Your task to perform on an android device: Go to eBay Image 0: 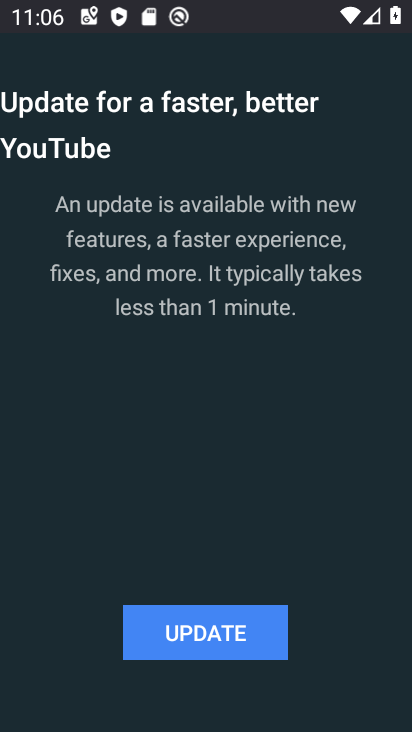
Step 0: press back button
Your task to perform on an android device: Go to eBay Image 1: 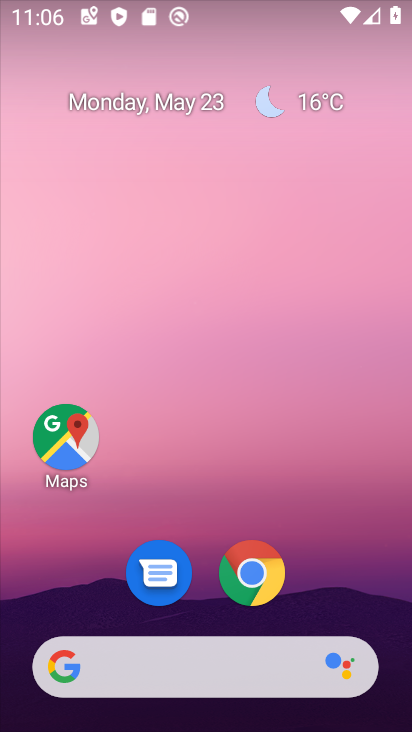
Step 1: drag from (321, 555) to (230, 25)
Your task to perform on an android device: Go to eBay Image 2: 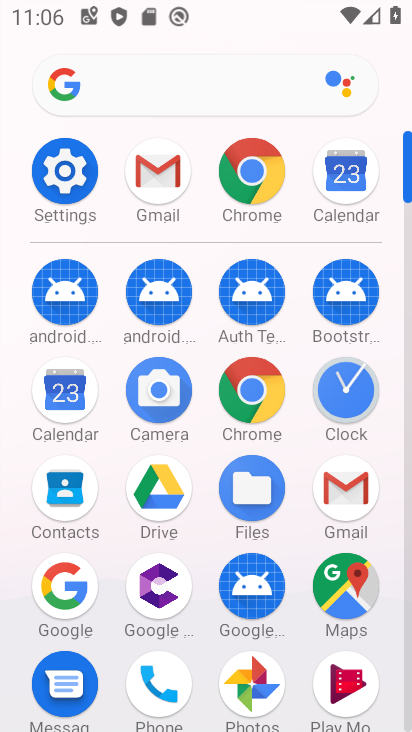
Step 2: drag from (31, 496) to (14, 148)
Your task to perform on an android device: Go to eBay Image 3: 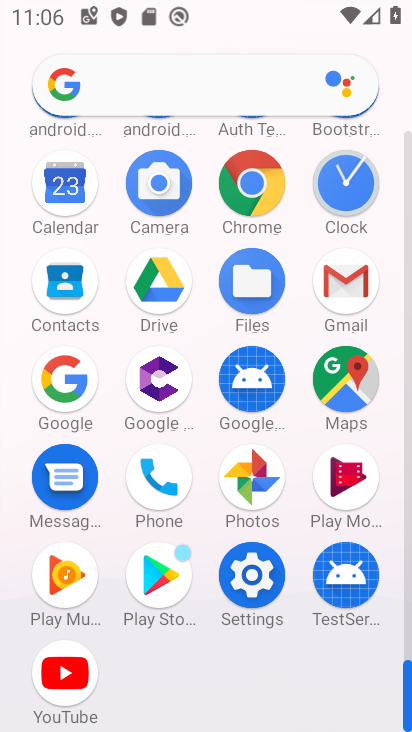
Step 3: click (252, 184)
Your task to perform on an android device: Go to eBay Image 4: 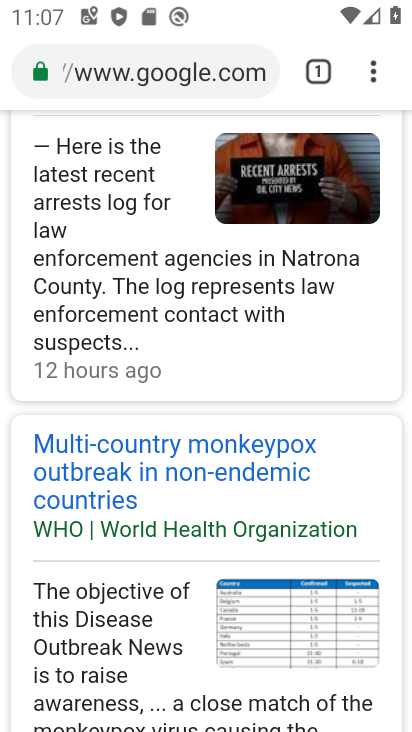
Step 4: drag from (155, 162) to (114, 463)
Your task to perform on an android device: Go to eBay Image 5: 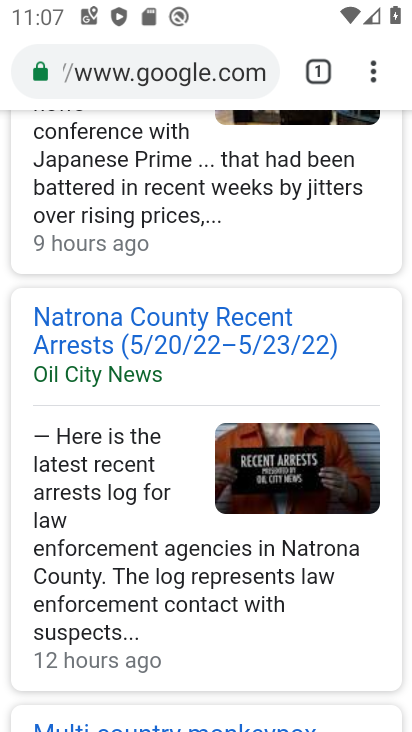
Step 5: click (125, 60)
Your task to perform on an android device: Go to eBay Image 6: 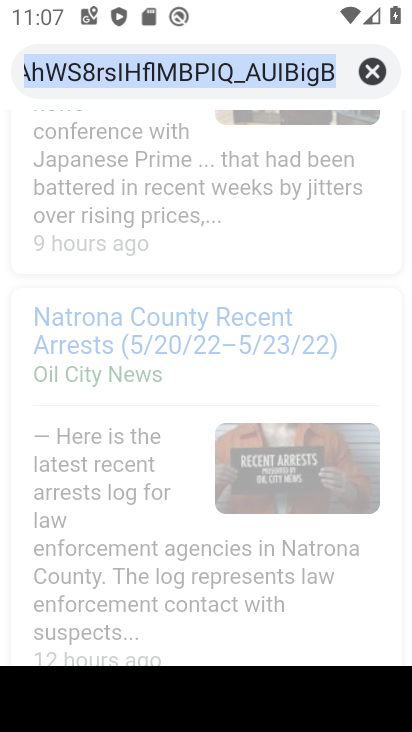
Step 6: click (358, 72)
Your task to perform on an android device: Go to eBay Image 7: 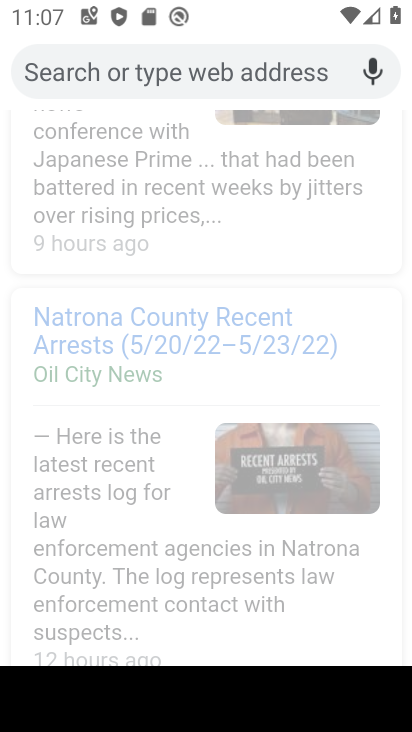
Step 7: type " eBay"
Your task to perform on an android device: Go to eBay Image 8: 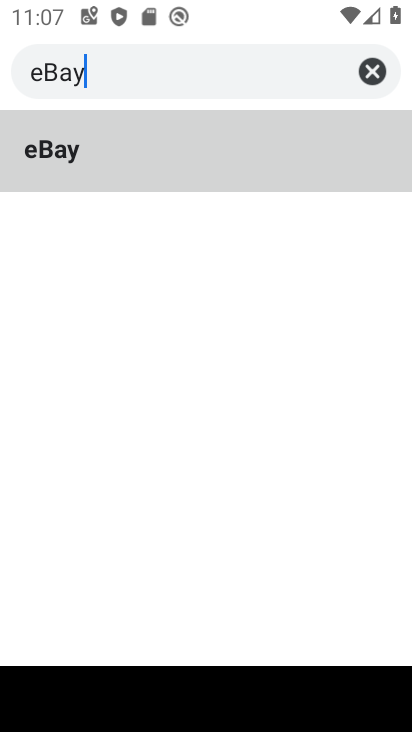
Step 8: type ""
Your task to perform on an android device: Go to eBay Image 9: 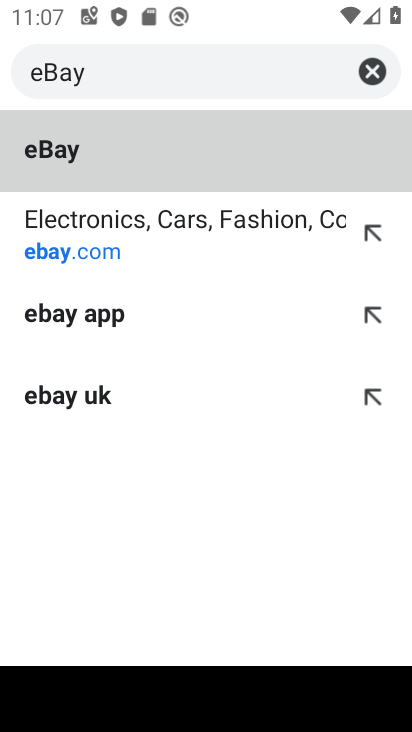
Step 9: click (90, 227)
Your task to perform on an android device: Go to eBay Image 10: 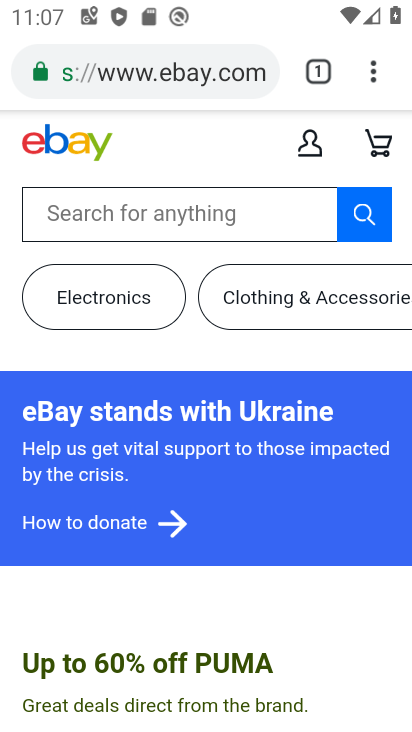
Step 10: task complete